Your task to perform on an android device: turn off smart reply in the gmail app Image 0: 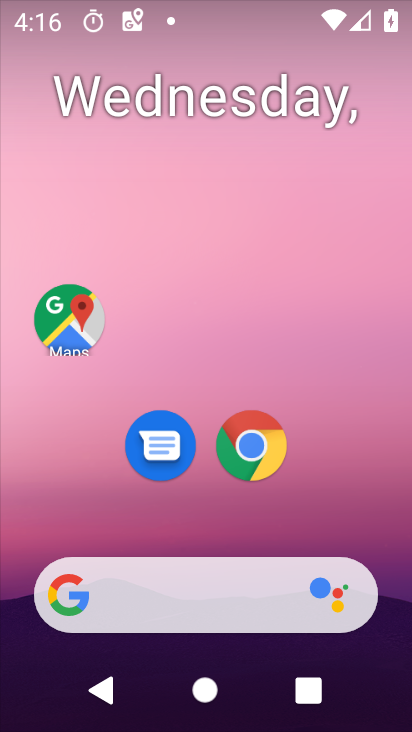
Step 0: drag from (212, 508) to (235, 140)
Your task to perform on an android device: turn off smart reply in the gmail app Image 1: 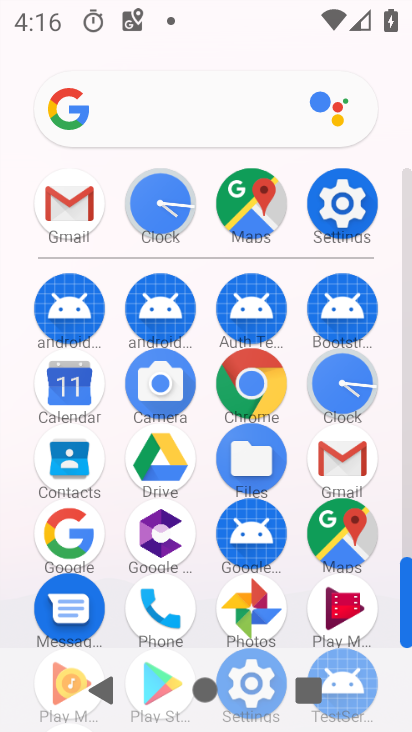
Step 1: click (64, 209)
Your task to perform on an android device: turn off smart reply in the gmail app Image 2: 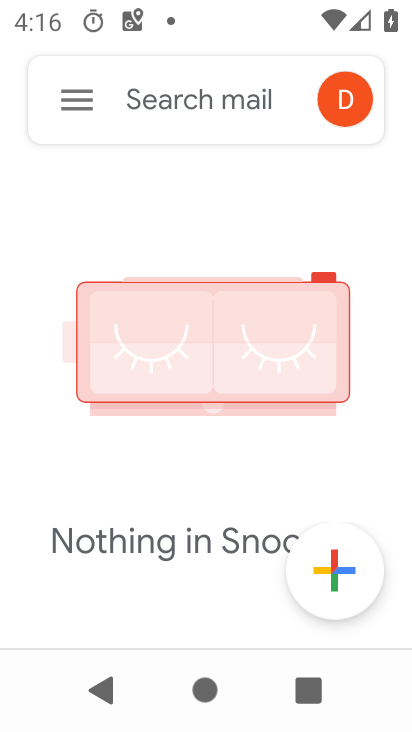
Step 2: click (77, 102)
Your task to perform on an android device: turn off smart reply in the gmail app Image 3: 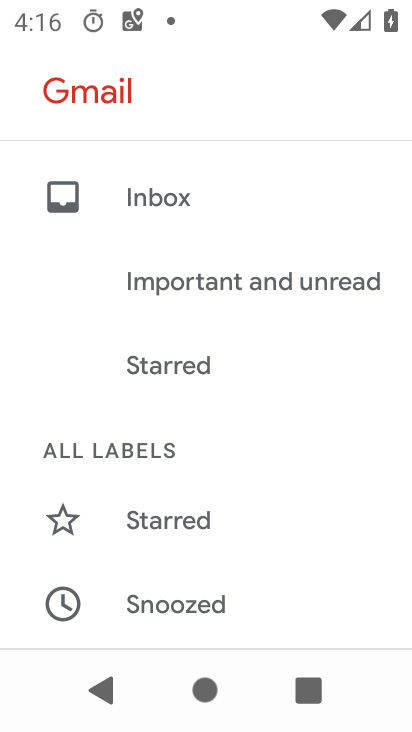
Step 3: drag from (210, 592) to (254, 7)
Your task to perform on an android device: turn off smart reply in the gmail app Image 4: 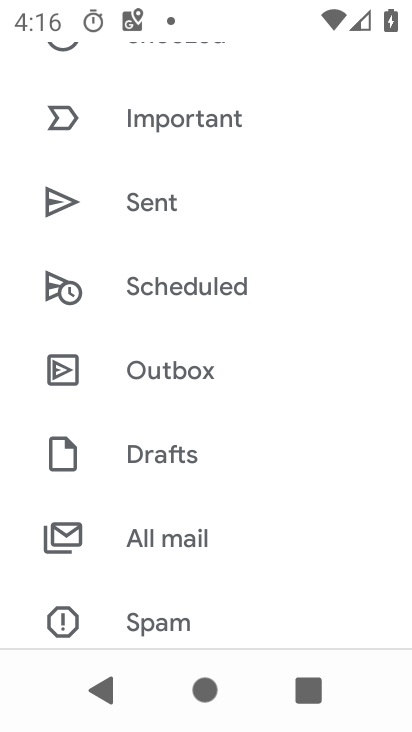
Step 4: drag from (224, 587) to (242, 95)
Your task to perform on an android device: turn off smart reply in the gmail app Image 5: 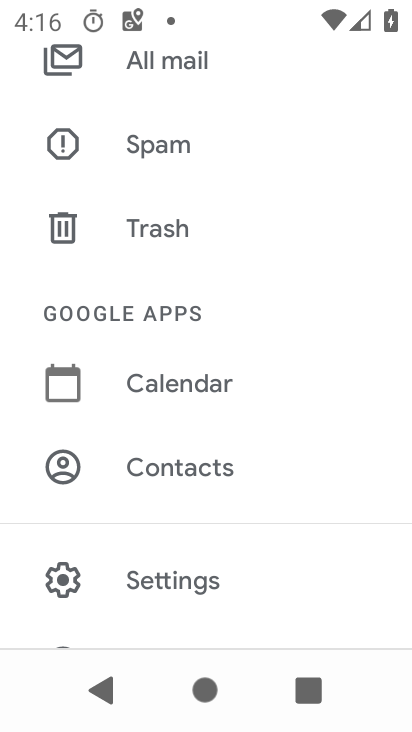
Step 5: click (183, 585)
Your task to perform on an android device: turn off smart reply in the gmail app Image 6: 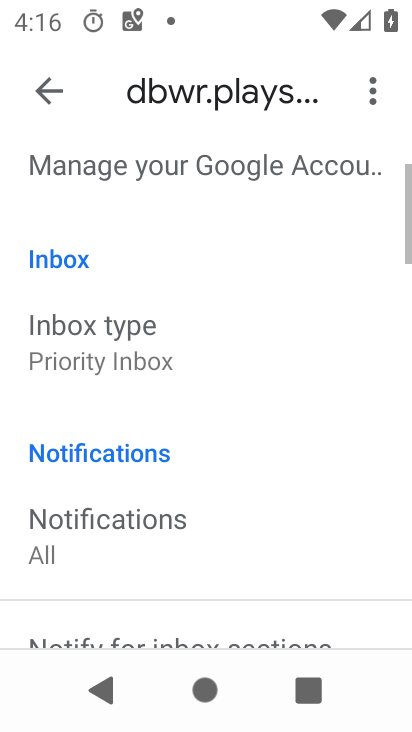
Step 6: drag from (265, 584) to (292, 1)
Your task to perform on an android device: turn off smart reply in the gmail app Image 7: 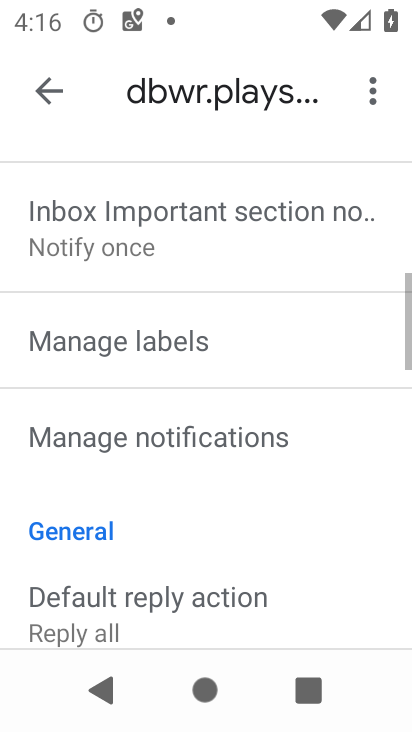
Step 7: drag from (138, 570) to (197, 77)
Your task to perform on an android device: turn off smart reply in the gmail app Image 8: 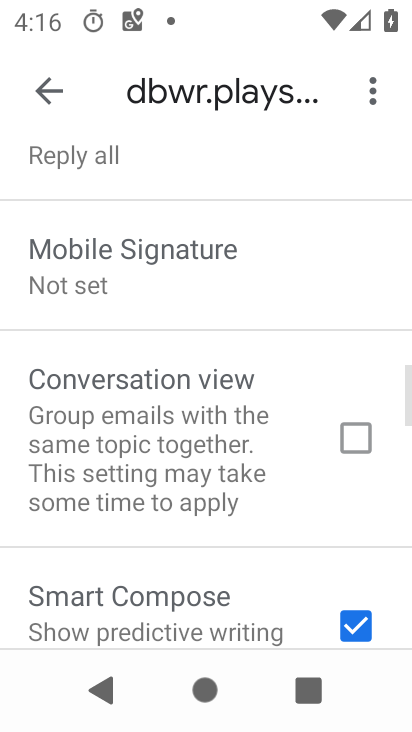
Step 8: drag from (222, 552) to (230, 196)
Your task to perform on an android device: turn off smart reply in the gmail app Image 9: 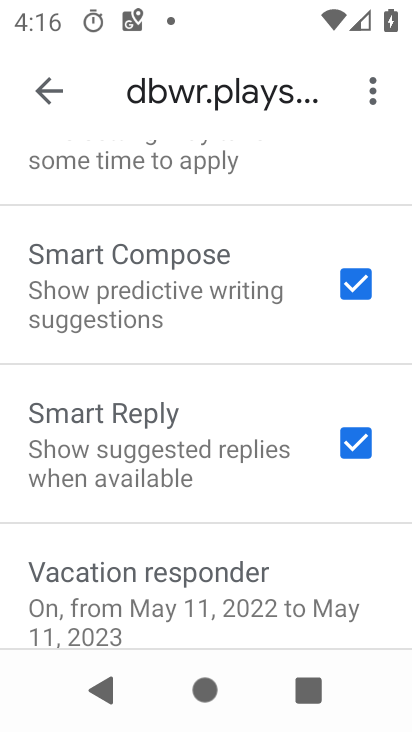
Step 9: click (346, 437)
Your task to perform on an android device: turn off smart reply in the gmail app Image 10: 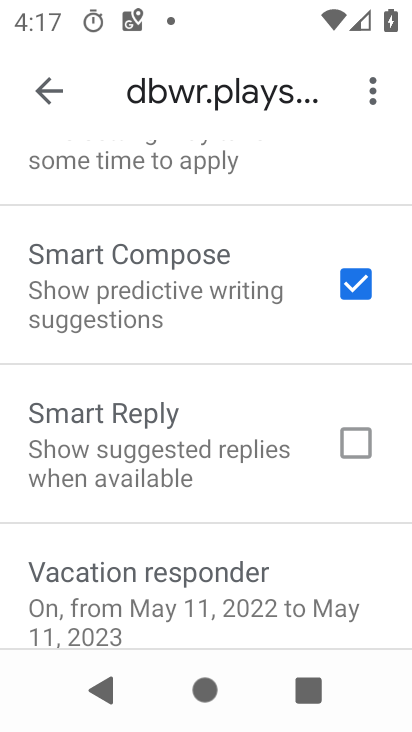
Step 10: task complete